Your task to perform on an android device: turn off notifications settings in the gmail app Image 0: 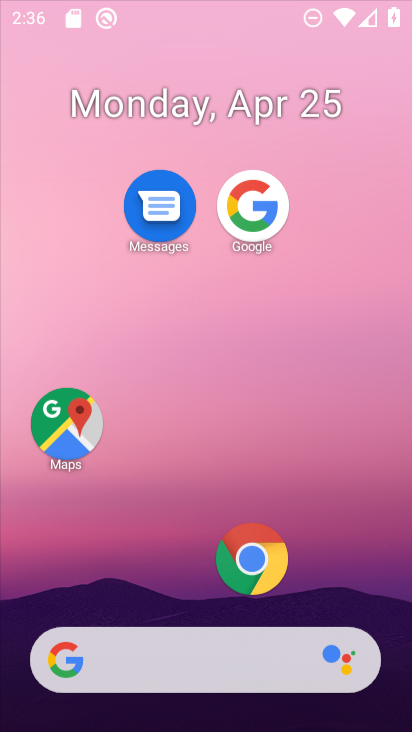
Step 0: click (257, 562)
Your task to perform on an android device: turn off notifications settings in the gmail app Image 1: 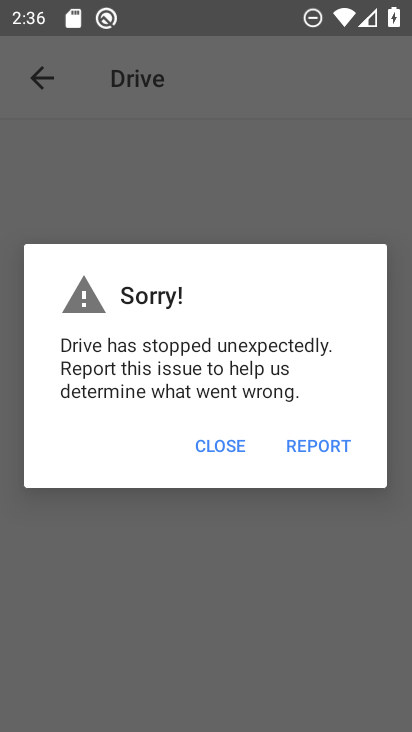
Step 1: press home button
Your task to perform on an android device: turn off notifications settings in the gmail app Image 2: 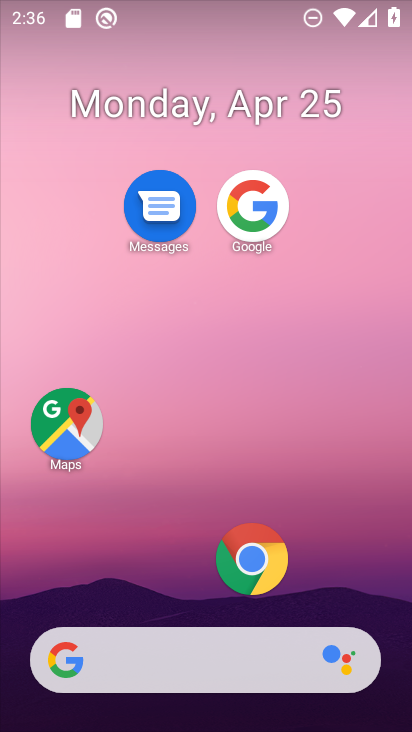
Step 2: drag from (165, 539) to (151, 142)
Your task to perform on an android device: turn off notifications settings in the gmail app Image 3: 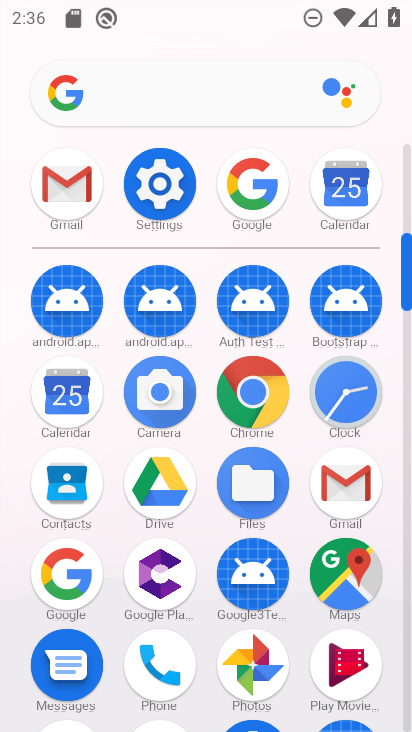
Step 3: click (64, 189)
Your task to perform on an android device: turn off notifications settings in the gmail app Image 4: 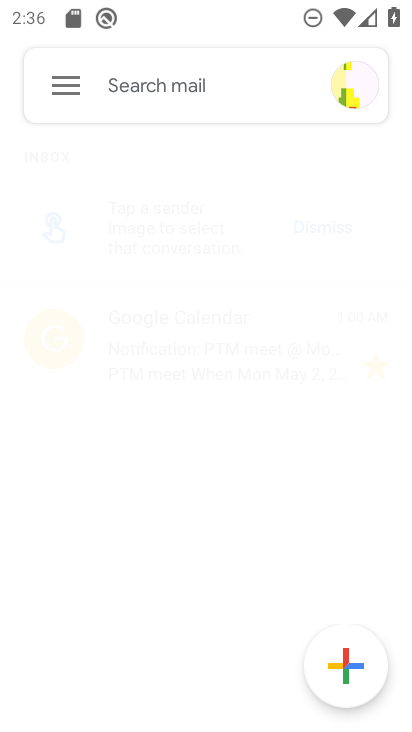
Step 4: click (61, 80)
Your task to perform on an android device: turn off notifications settings in the gmail app Image 5: 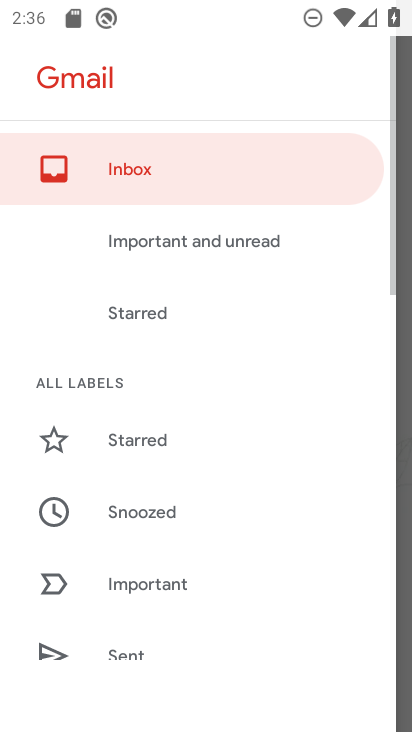
Step 5: drag from (204, 571) to (213, 158)
Your task to perform on an android device: turn off notifications settings in the gmail app Image 6: 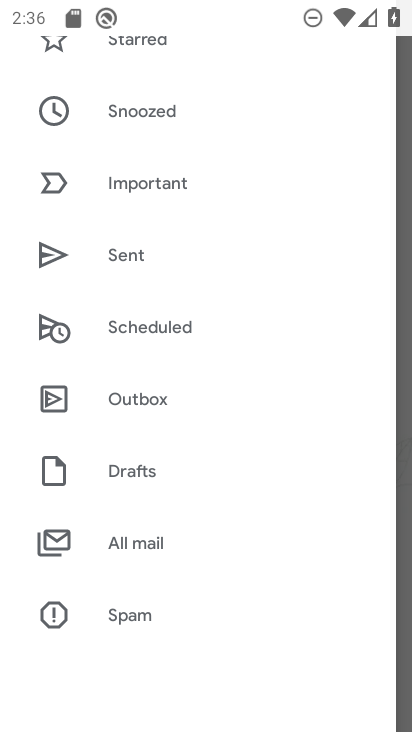
Step 6: drag from (222, 589) to (223, 273)
Your task to perform on an android device: turn off notifications settings in the gmail app Image 7: 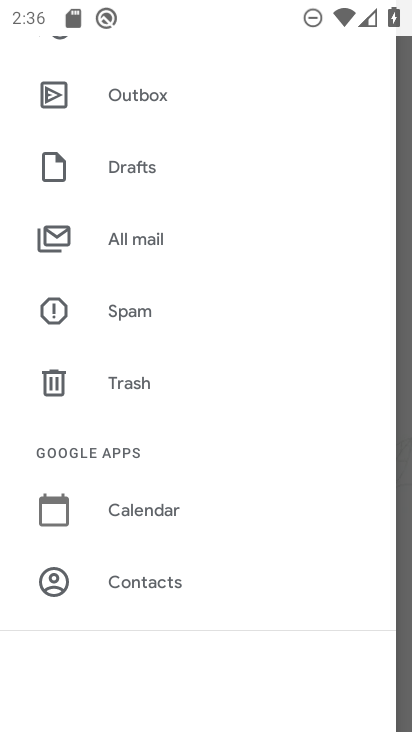
Step 7: drag from (205, 277) to (220, 504)
Your task to perform on an android device: turn off notifications settings in the gmail app Image 8: 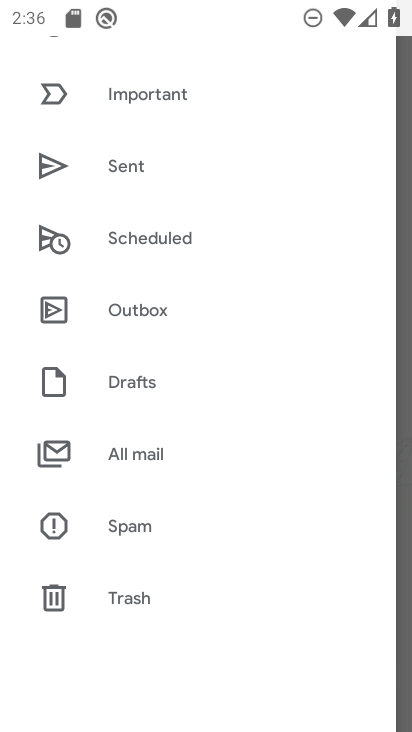
Step 8: drag from (200, 462) to (203, 78)
Your task to perform on an android device: turn off notifications settings in the gmail app Image 9: 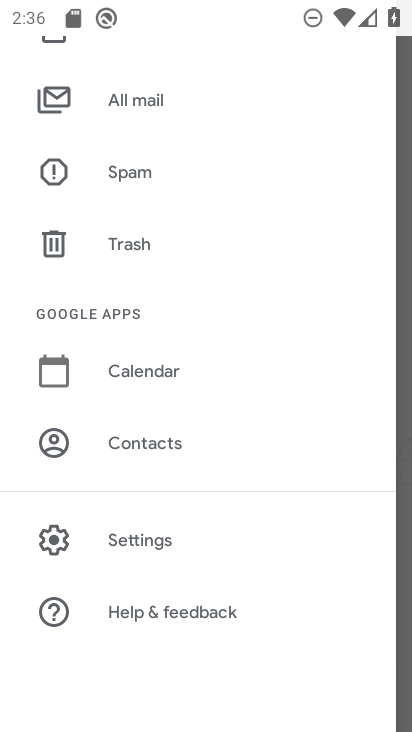
Step 9: click (134, 530)
Your task to perform on an android device: turn off notifications settings in the gmail app Image 10: 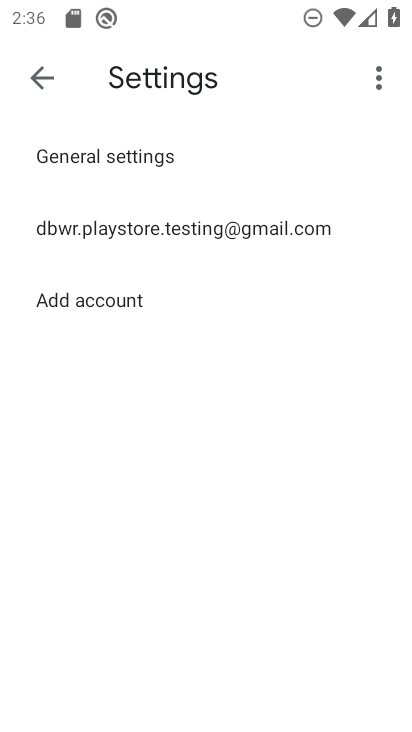
Step 10: click (106, 221)
Your task to perform on an android device: turn off notifications settings in the gmail app Image 11: 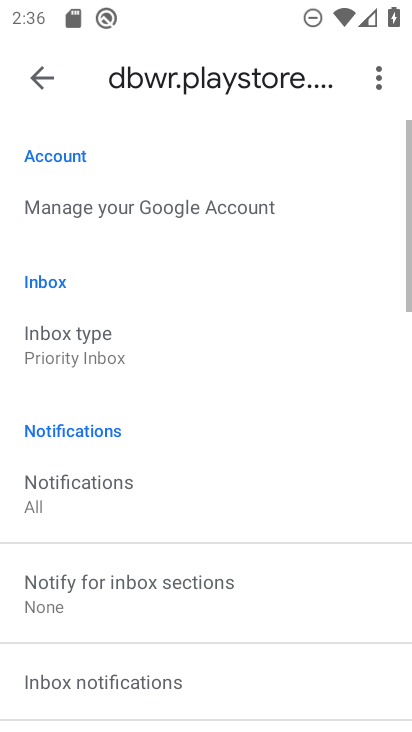
Step 11: drag from (211, 549) to (230, 339)
Your task to perform on an android device: turn off notifications settings in the gmail app Image 12: 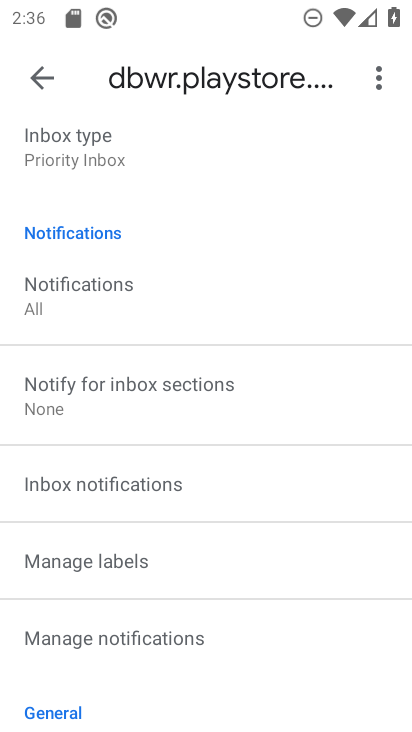
Step 12: click (63, 294)
Your task to perform on an android device: turn off notifications settings in the gmail app Image 13: 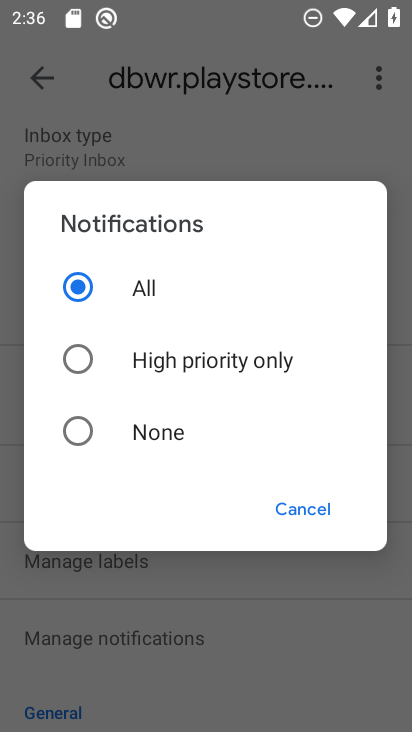
Step 13: click (85, 434)
Your task to perform on an android device: turn off notifications settings in the gmail app Image 14: 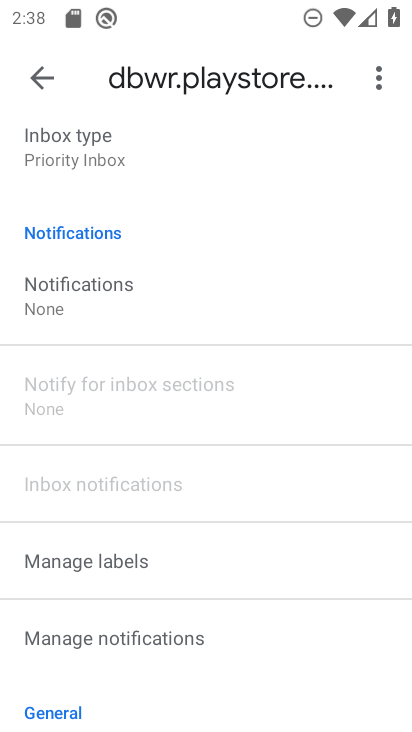
Step 14: task complete